Your task to perform on an android device: change the upload size in google photos Image 0: 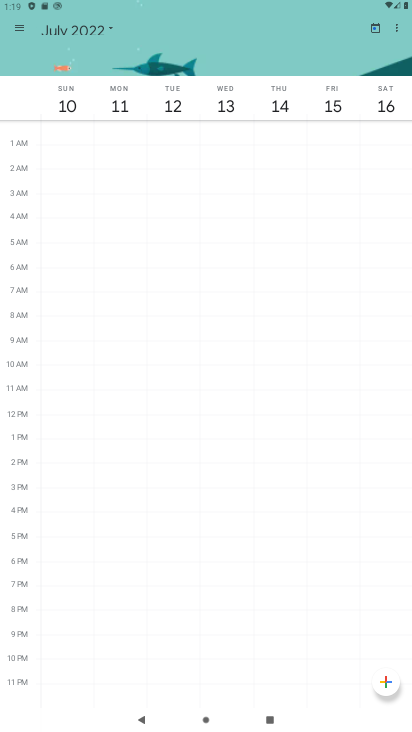
Step 0: press home button
Your task to perform on an android device: change the upload size in google photos Image 1: 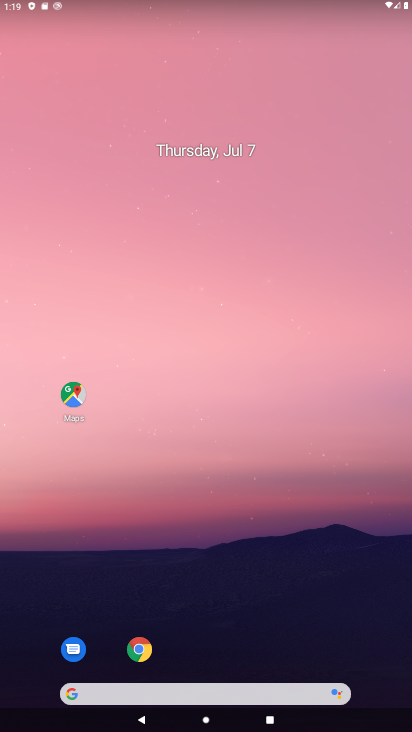
Step 1: drag from (395, 655) to (330, 122)
Your task to perform on an android device: change the upload size in google photos Image 2: 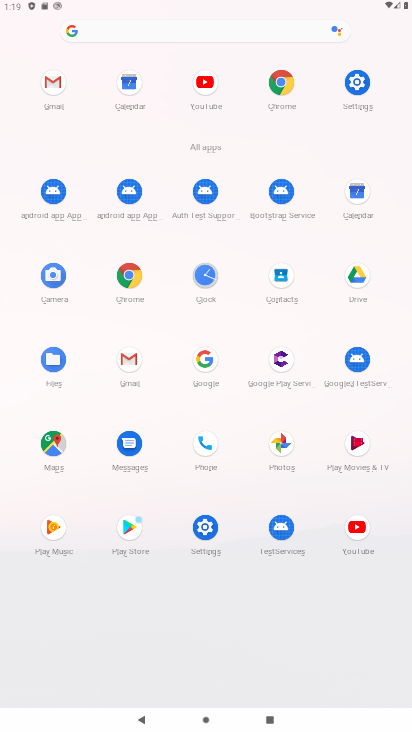
Step 2: click (279, 443)
Your task to perform on an android device: change the upload size in google photos Image 3: 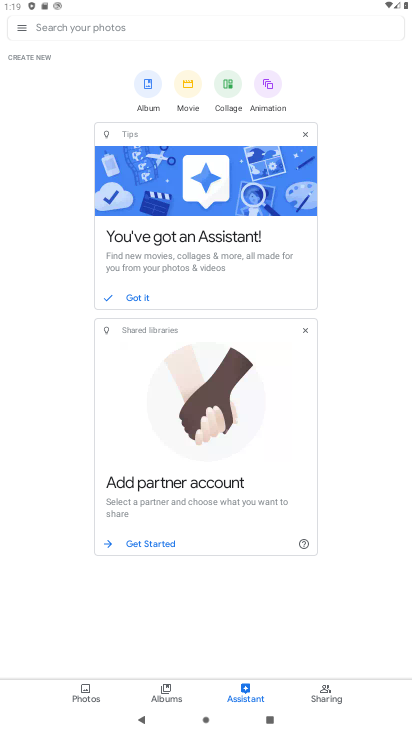
Step 3: click (84, 694)
Your task to perform on an android device: change the upload size in google photos Image 4: 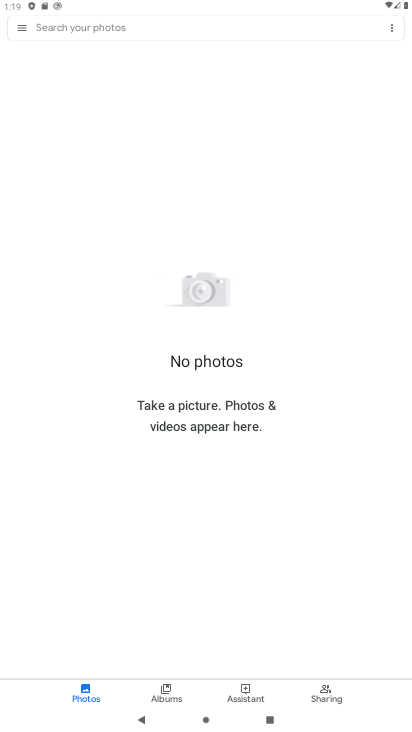
Step 4: click (19, 27)
Your task to perform on an android device: change the upload size in google photos Image 5: 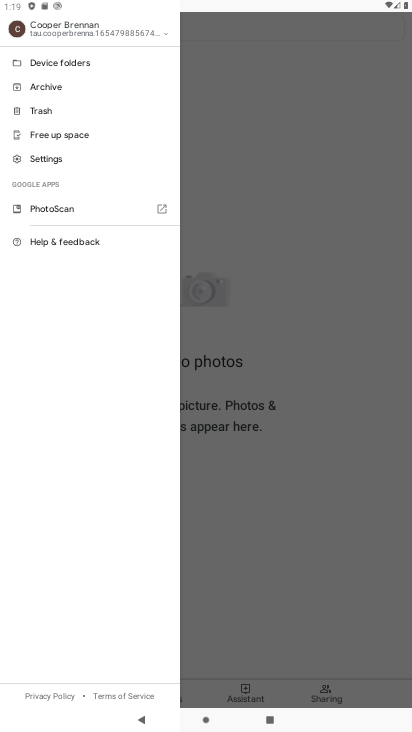
Step 5: click (43, 160)
Your task to perform on an android device: change the upload size in google photos Image 6: 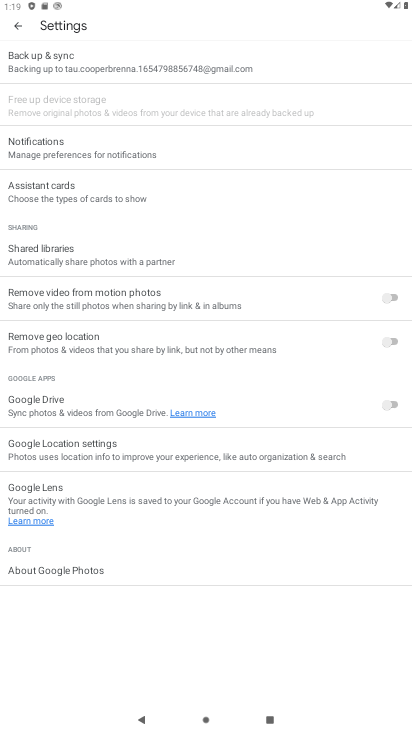
Step 6: click (57, 63)
Your task to perform on an android device: change the upload size in google photos Image 7: 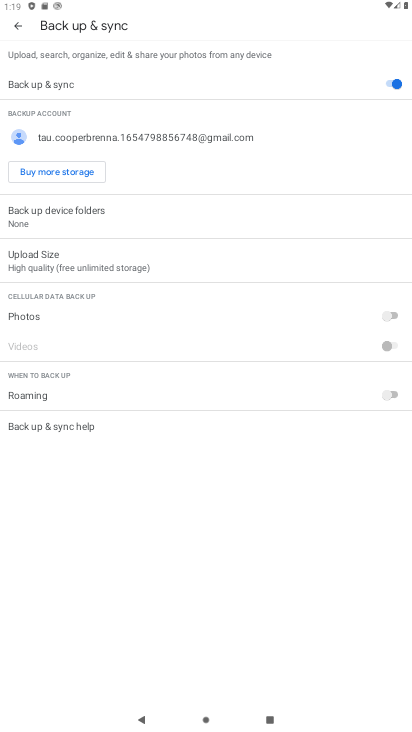
Step 7: click (47, 258)
Your task to perform on an android device: change the upload size in google photos Image 8: 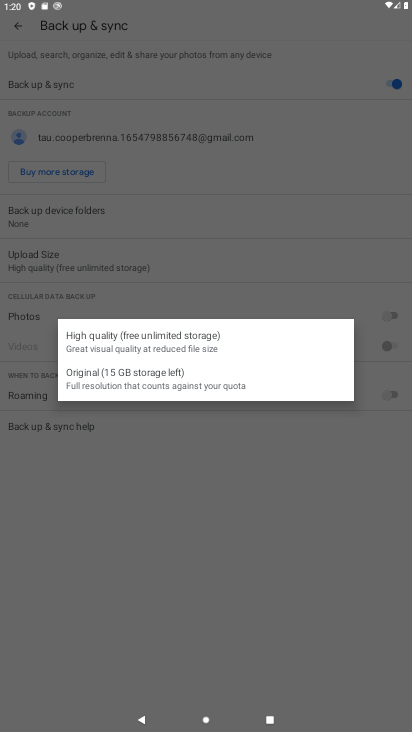
Step 8: click (103, 337)
Your task to perform on an android device: change the upload size in google photos Image 9: 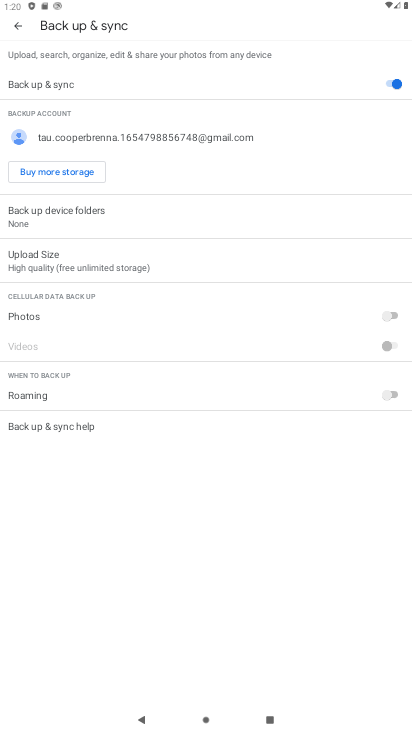
Step 9: click (30, 251)
Your task to perform on an android device: change the upload size in google photos Image 10: 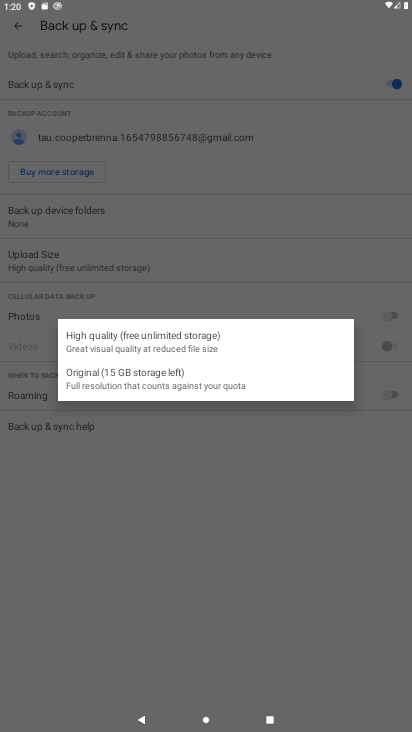
Step 10: click (128, 372)
Your task to perform on an android device: change the upload size in google photos Image 11: 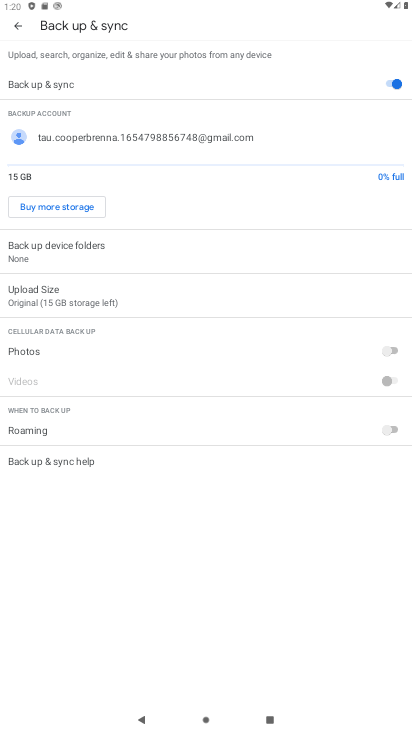
Step 11: task complete